Your task to perform on an android device: Open display settings Image 0: 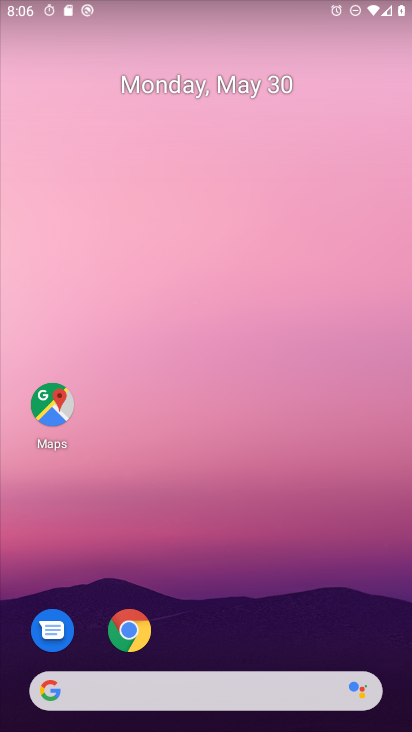
Step 0: drag from (317, 611) to (297, 201)
Your task to perform on an android device: Open display settings Image 1: 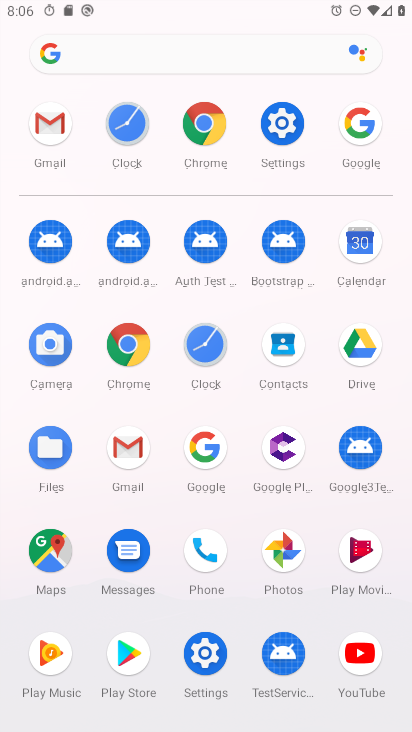
Step 1: click (205, 659)
Your task to perform on an android device: Open display settings Image 2: 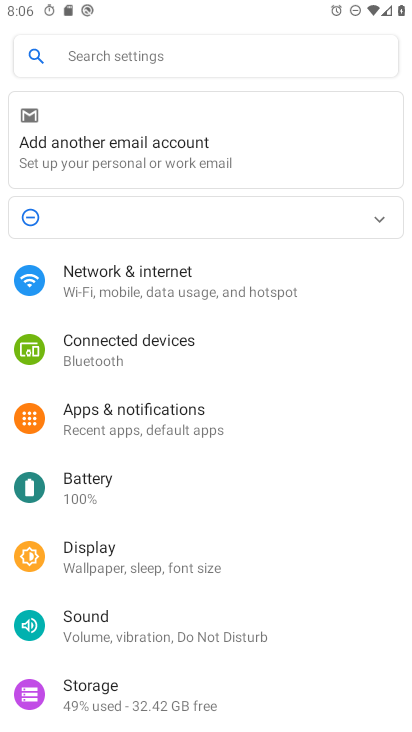
Step 2: click (148, 574)
Your task to perform on an android device: Open display settings Image 3: 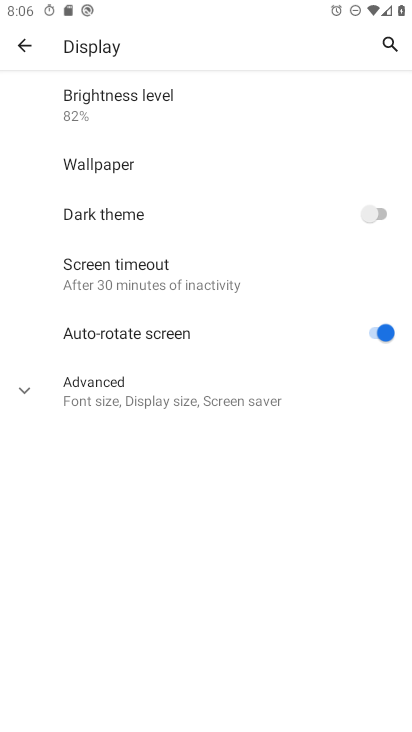
Step 3: task complete